Your task to perform on an android device: Open Chrome and go to the settings page Image 0: 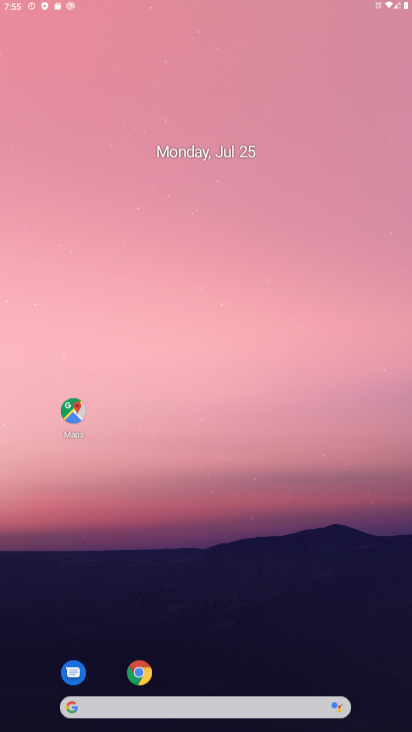
Step 0: drag from (367, 649) to (188, 90)
Your task to perform on an android device: Open Chrome and go to the settings page Image 1: 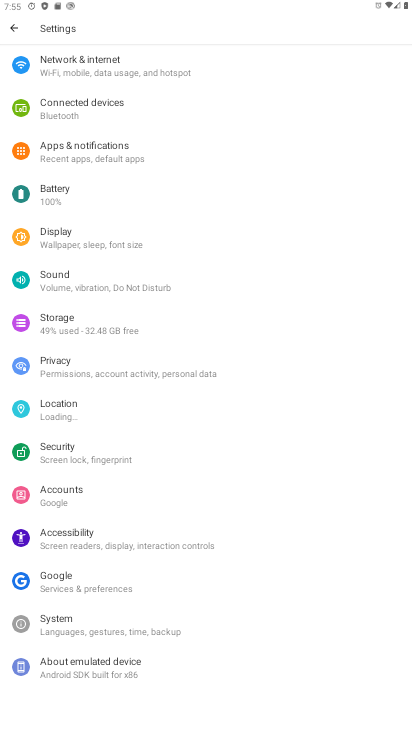
Step 1: press home button
Your task to perform on an android device: Open Chrome and go to the settings page Image 2: 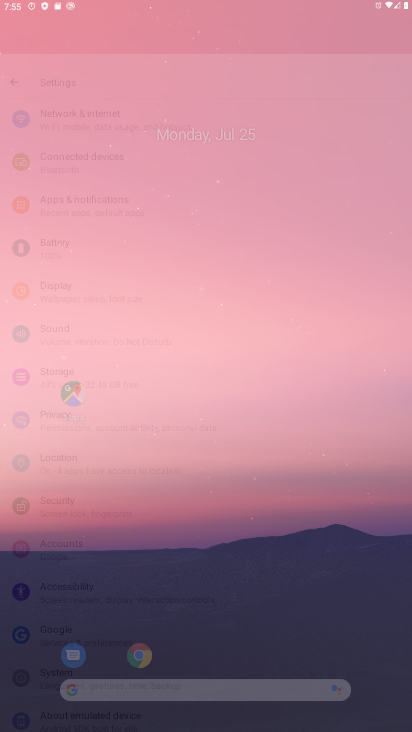
Step 2: drag from (345, 680) to (89, 67)
Your task to perform on an android device: Open Chrome and go to the settings page Image 3: 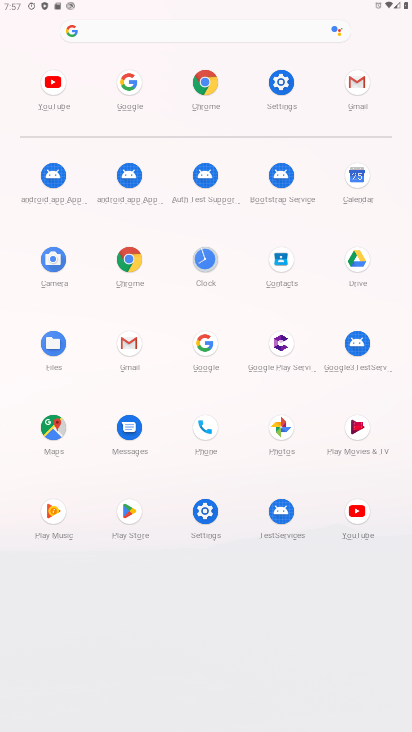
Step 3: click (119, 258)
Your task to perform on an android device: Open Chrome and go to the settings page Image 4: 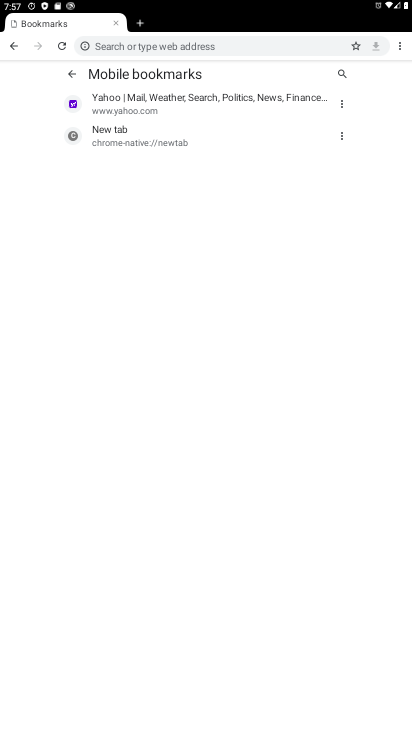
Step 4: click (395, 47)
Your task to perform on an android device: Open Chrome and go to the settings page Image 5: 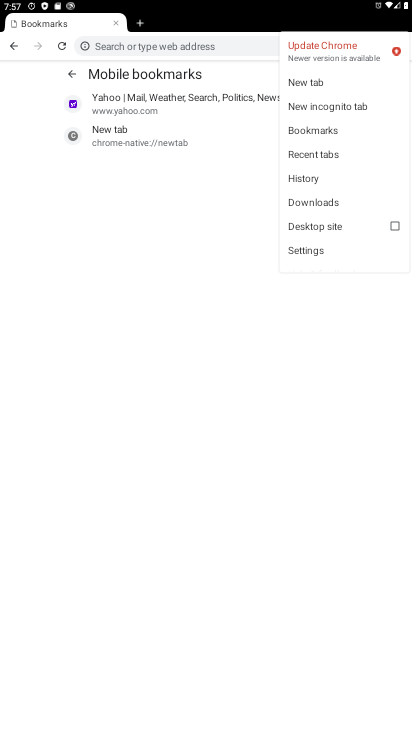
Step 5: click (320, 251)
Your task to perform on an android device: Open Chrome and go to the settings page Image 6: 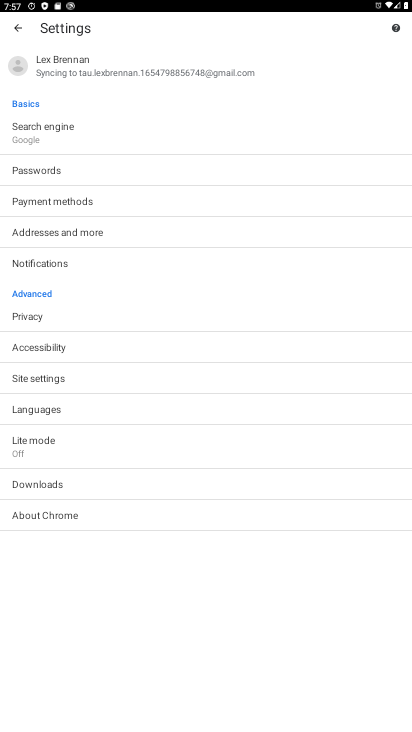
Step 6: task complete